Your task to perform on an android device: turn on location history Image 0: 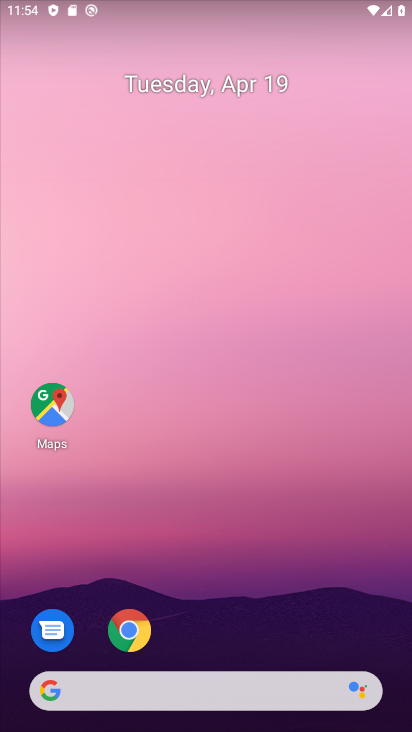
Step 0: drag from (198, 589) to (302, 64)
Your task to perform on an android device: turn on location history Image 1: 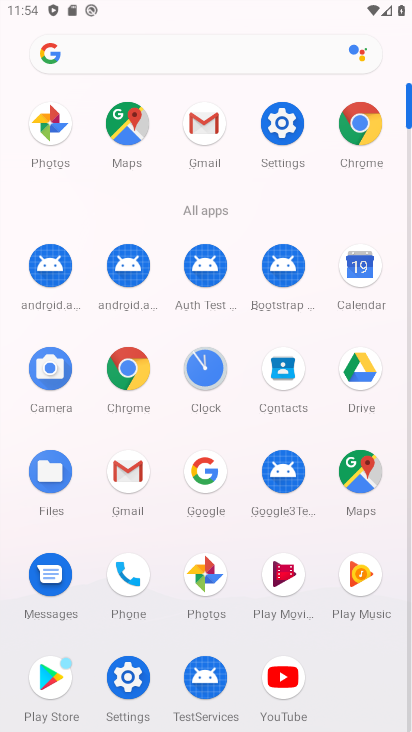
Step 1: click (288, 129)
Your task to perform on an android device: turn on location history Image 2: 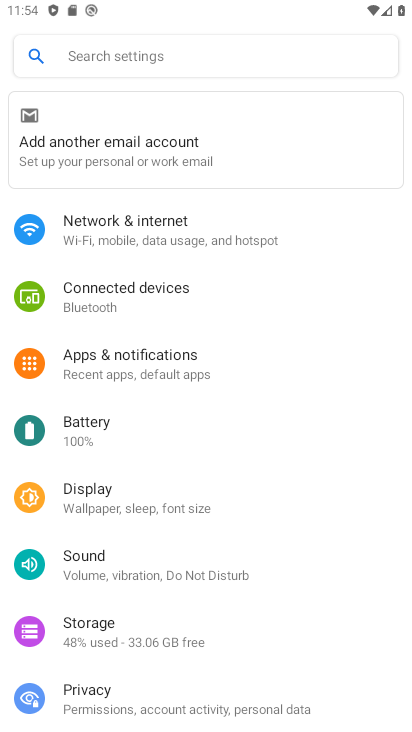
Step 2: drag from (181, 571) to (277, 264)
Your task to perform on an android device: turn on location history Image 3: 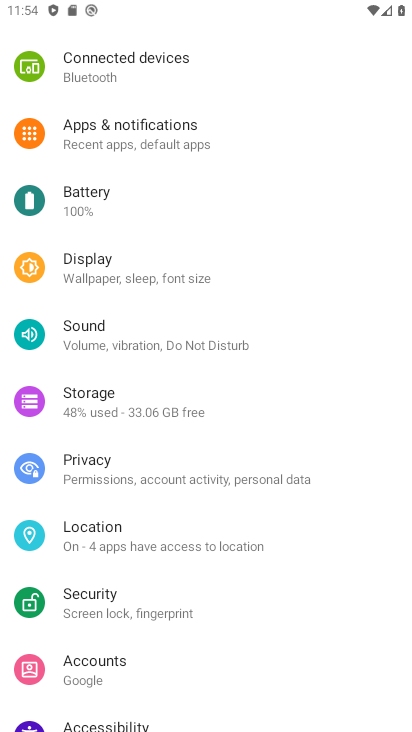
Step 3: click (103, 531)
Your task to perform on an android device: turn on location history Image 4: 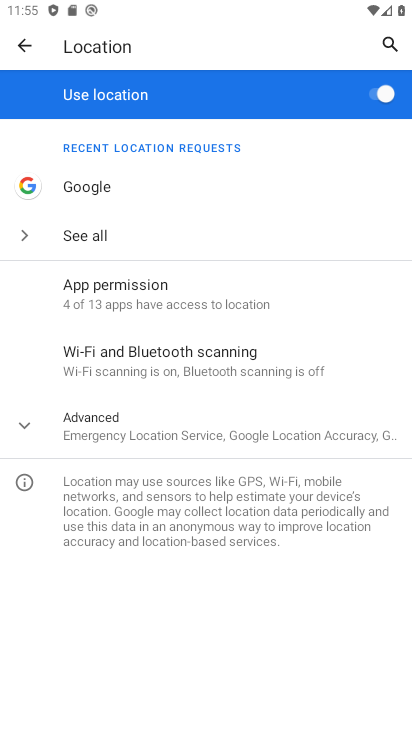
Step 4: click (106, 419)
Your task to perform on an android device: turn on location history Image 5: 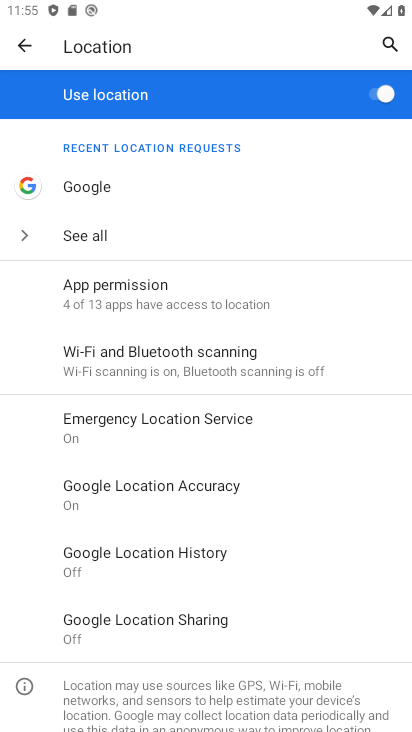
Step 5: click (170, 553)
Your task to perform on an android device: turn on location history Image 6: 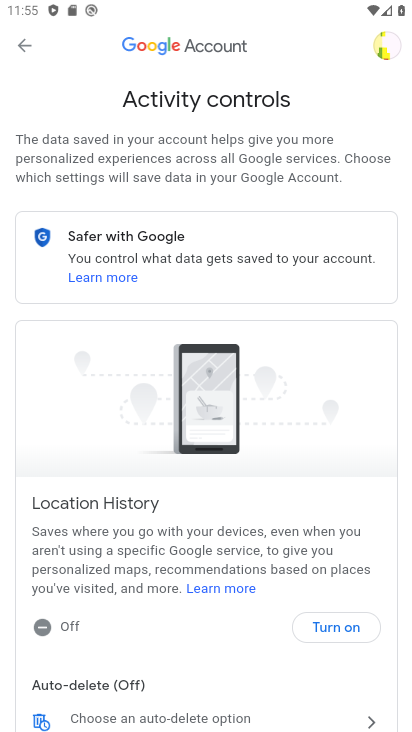
Step 6: click (334, 624)
Your task to perform on an android device: turn on location history Image 7: 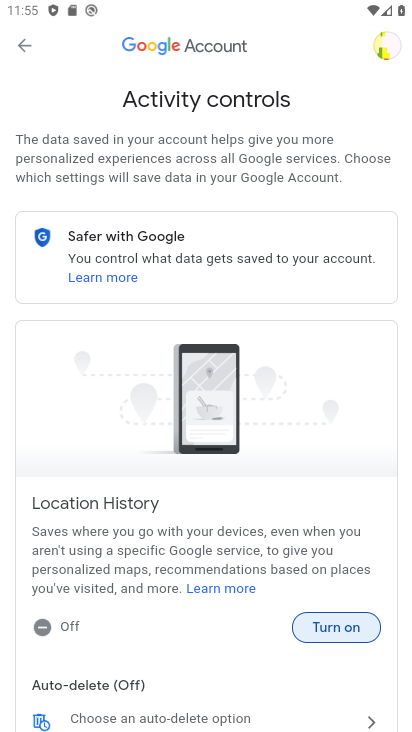
Step 7: click (331, 626)
Your task to perform on an android device: turn on location history Image 8: 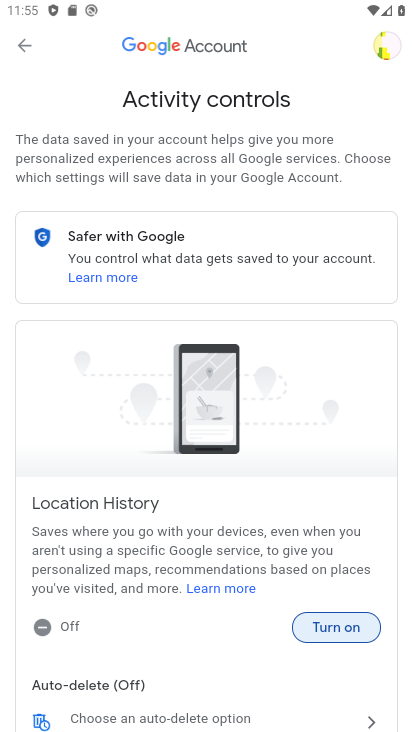
Step 8: click (323, 628)
Your task to perform on an android device: turn on location history Image 9: 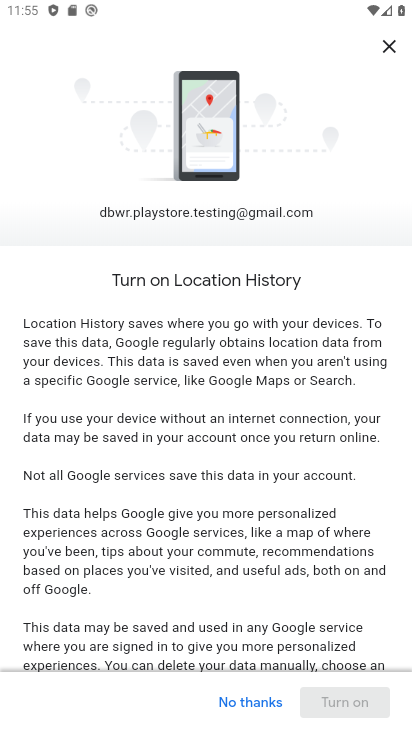
Step 9: drag from (222, 641) to (342, 274)
Your task to perform on an android device: turn on location history Image 10: 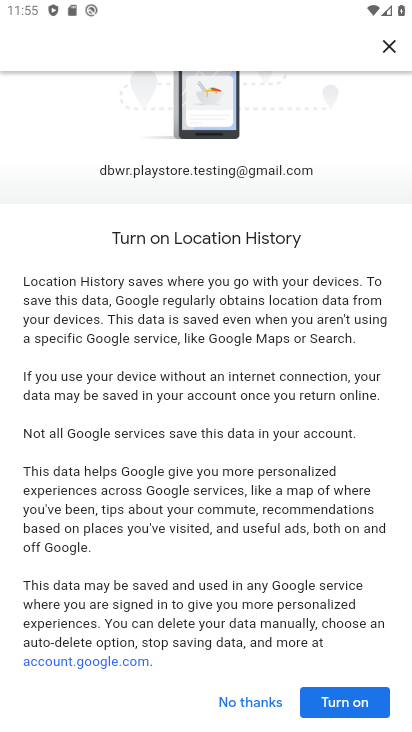
Step 10: click (340, 706)
Your task to perform on an android device: turn on location history Image 11: 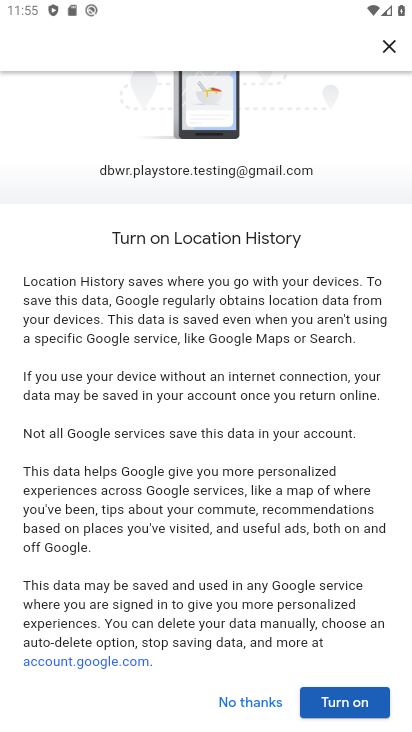
Step 11: click (347, 703)
Your task to perform on an android device: turn on location history Image 12: 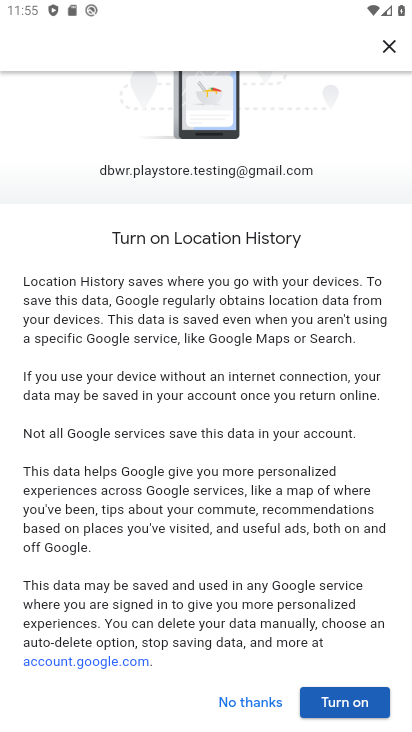
Step 12: click (342, 704)
Your task to perform on an android device: turn on location history Image 13: 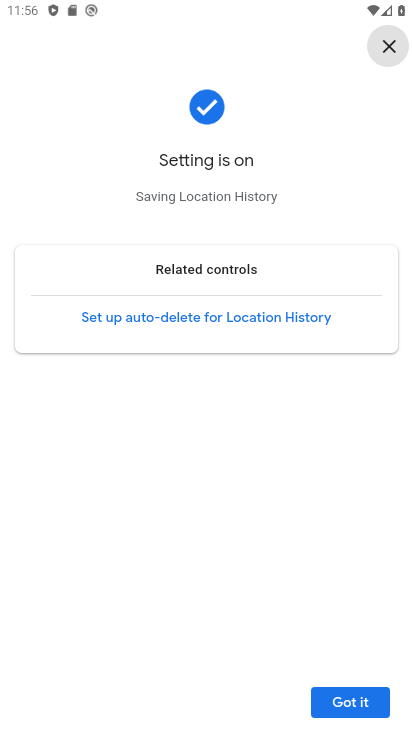
Step 13: task complete